Your task to perform on an android device: Open Wikipedia Image 0: 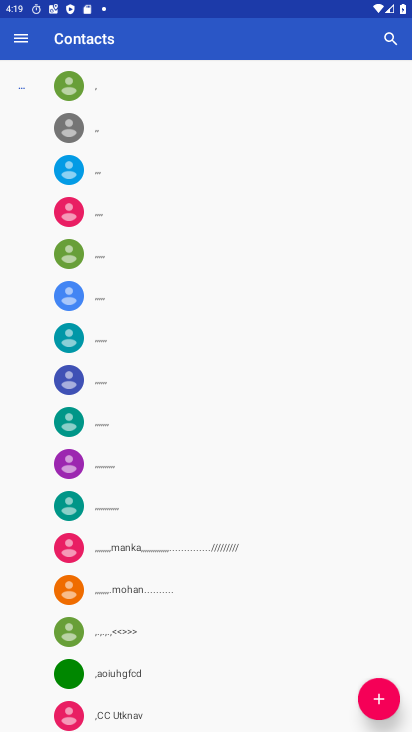
Step 0: press home button
Your task to perform on an android device: Open Wikipedia Image 1: 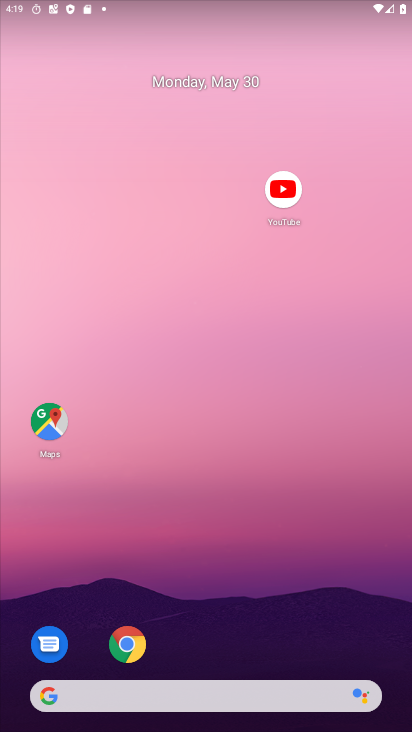
Step 1: click (130, 641)
Your task to perform on an android device: Open Wikipedia Image 2: 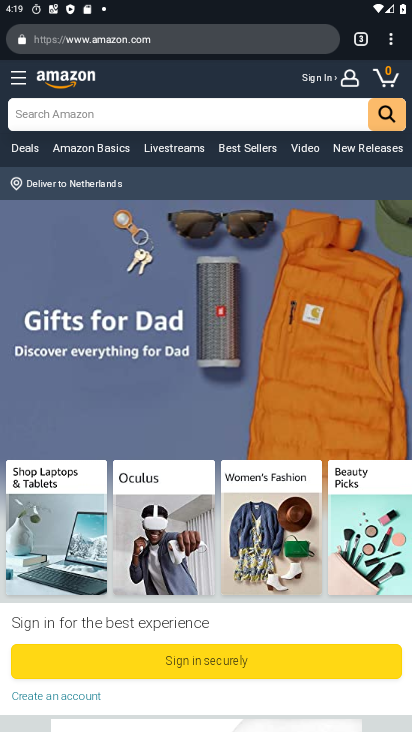
Step 2: click (369, 35)
Your task to perform on an android device: Open Wikipedia Image 3: 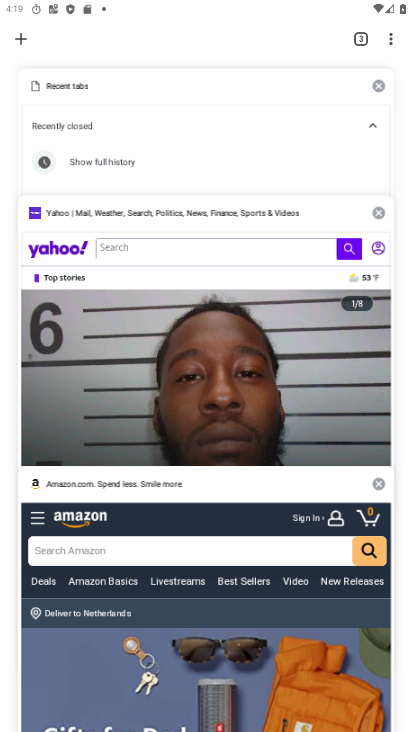
Step 3: click (26, 44)
Your task to perform on an android device: Open Wikipedia Image 4: 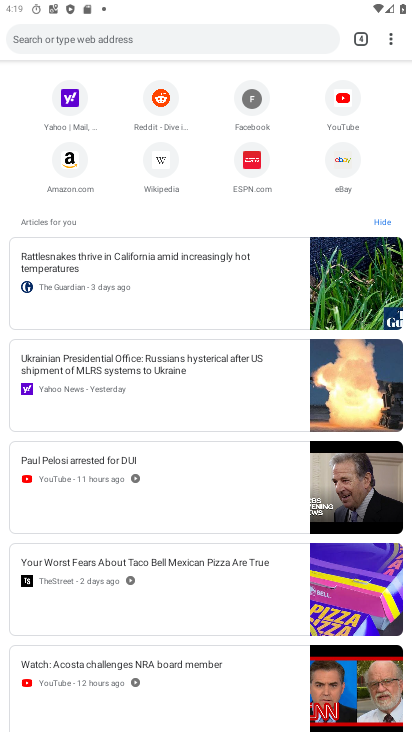
Step 4: click (148, 179)
Your task to perform on an android device: Open Wikipedia Image 5: 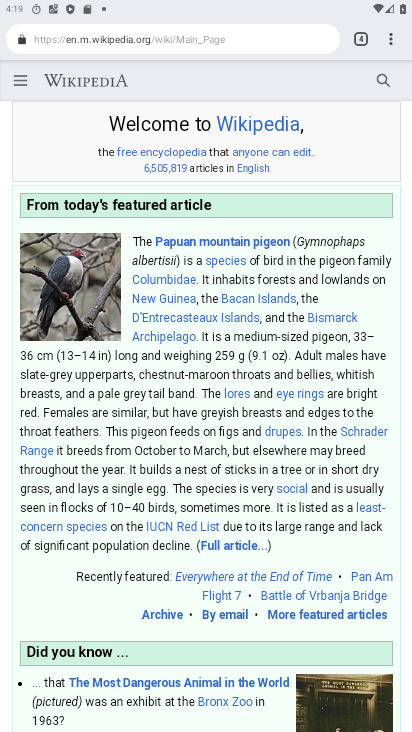
Step 5: task complete